Your task to perform on an android device: Go to notification settings Image 0: 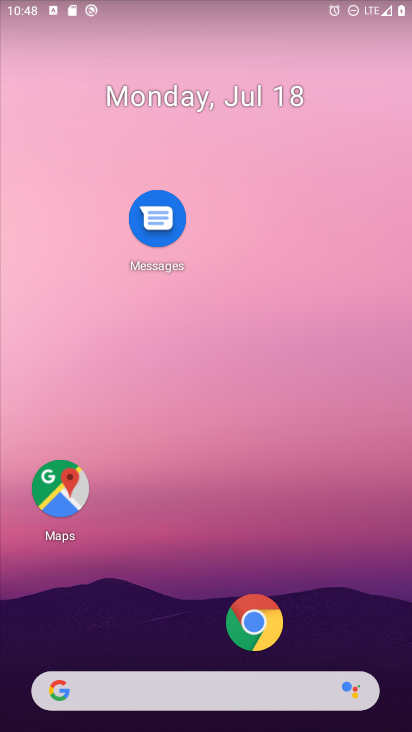
Step 0: drag from (180, 623) to (297, 106)
Your task to perform on an android device: Go to notification settings Image 1: 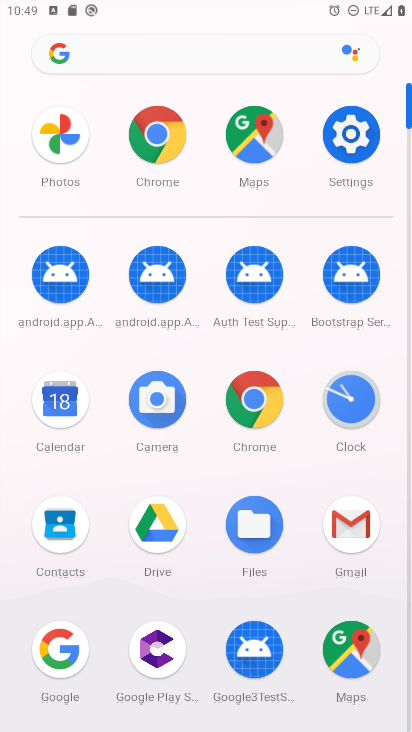
Step 1: click (365, 145)
Your task to perform on an android device: Go to notification settings Image 2: 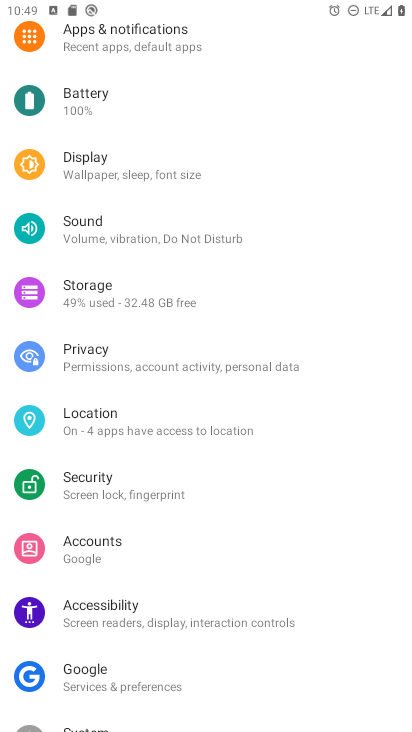
Step 2: drag from (164, 221) to (133, 632)
Your task to perform on an android device: Go to notification settings Image 3: 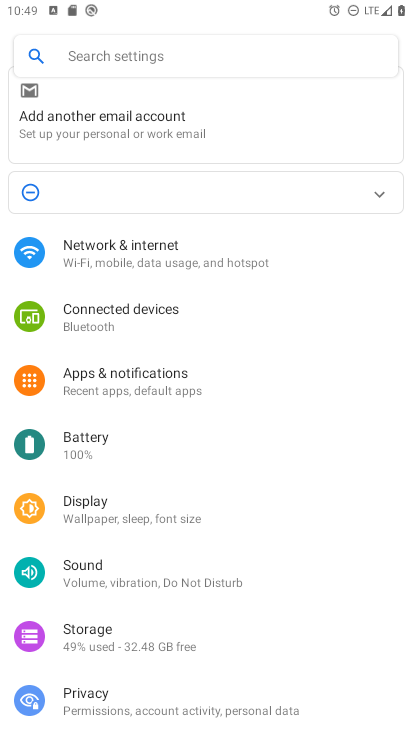
Step 3: click (136, 376)
Your task to perform on an android device: Go to notification settings Image 4: 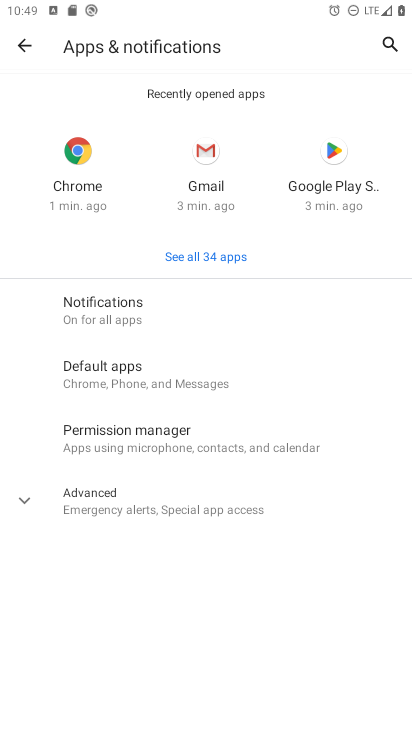
Step 4: task complete